Your task to perform on an android device: Go to settings Image 0: 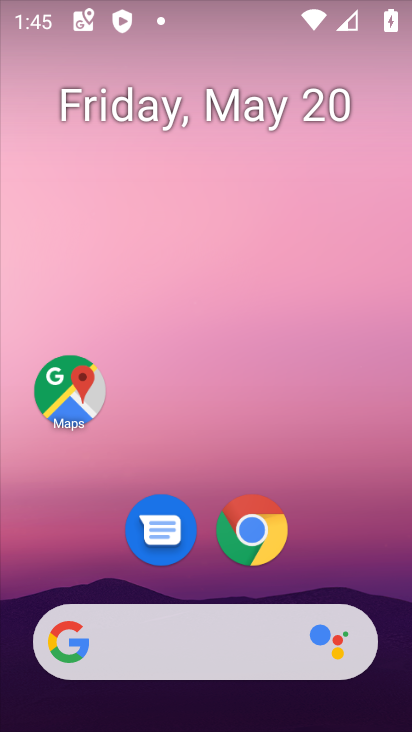
Step 0: drag from (242, 708) to (272, 34)
Your task to perform on an android device: Go to settings Image 1: 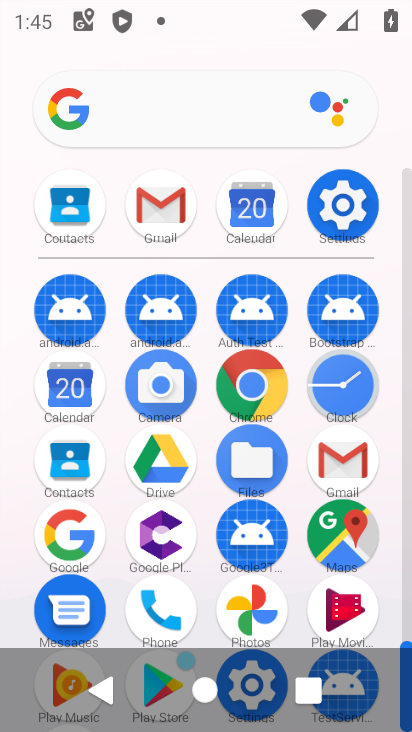
Step 1: click (351, 204)
Your task to perform on an android device: Go to settings Image 2: 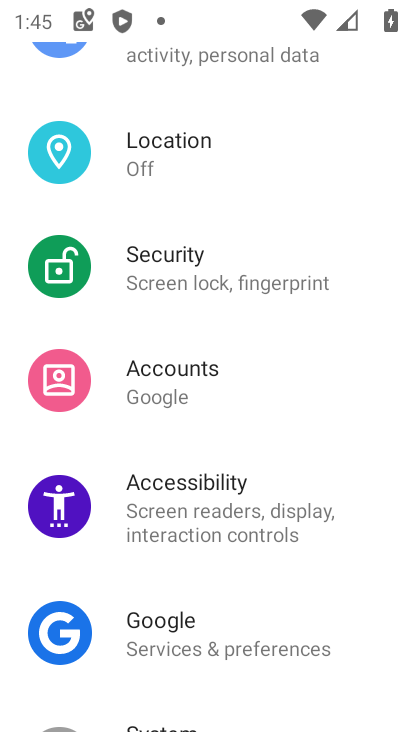
Step 2: task complete